Your task to perform on an android device: uninstall "PUBG MOBILE" Image 0: 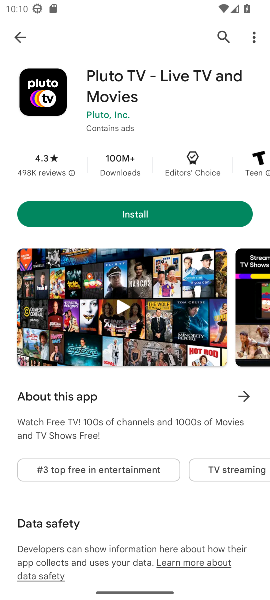
Step 0: click (221, 34)
Your task to perform on an android device: uninstall "PUBG MOBILE" Image 1: 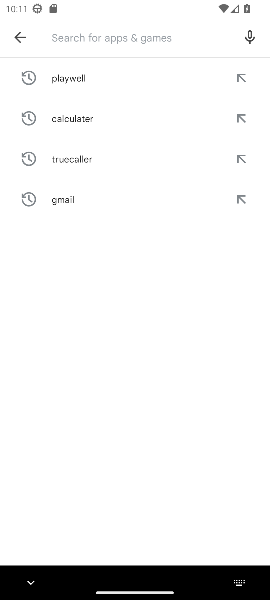
Step 1: type "PUBG MOBILE"
Your task to perform on an android device: uninstall "PUBG MOBILE" Image 2: 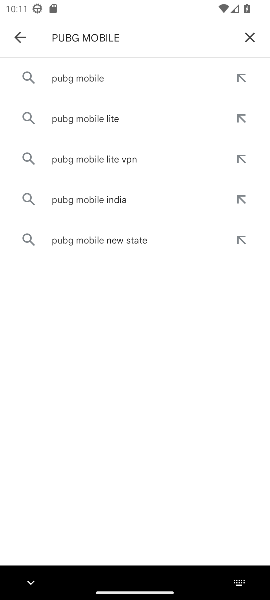
Step 2: click (89, 77)
Your task to perform on an android device: uninstall "PUBG MOBILE" Image 3: 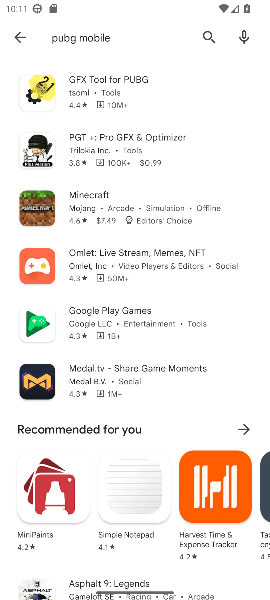
Step 3: task complete